Your task to perform on an android device: Is it going to rain this weekend? Image 0: 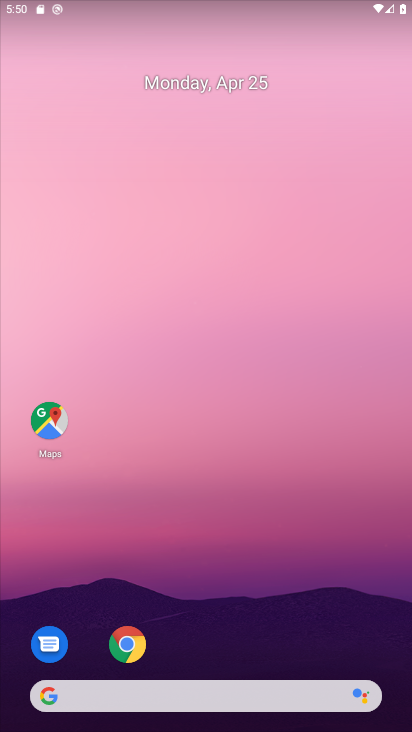
Step 0: drag from (276, 608) to (181, 120)
Your task to perform on an android device: Is it going to rain this weekend? Image 1: 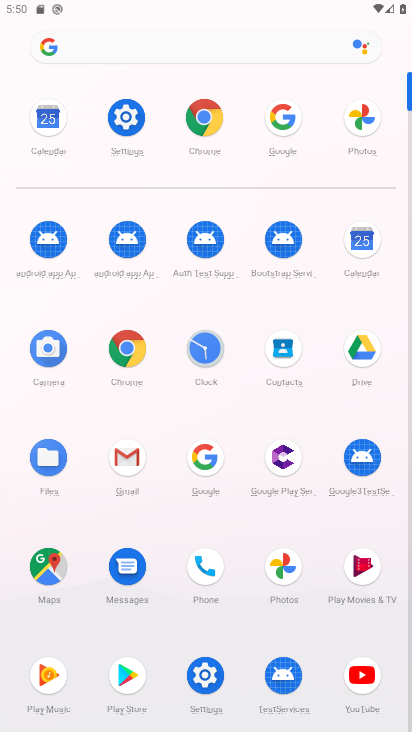
Step 1: click (205, 461)
Your task to perform on an android device: Is it going to rain this weekend? Image 2: 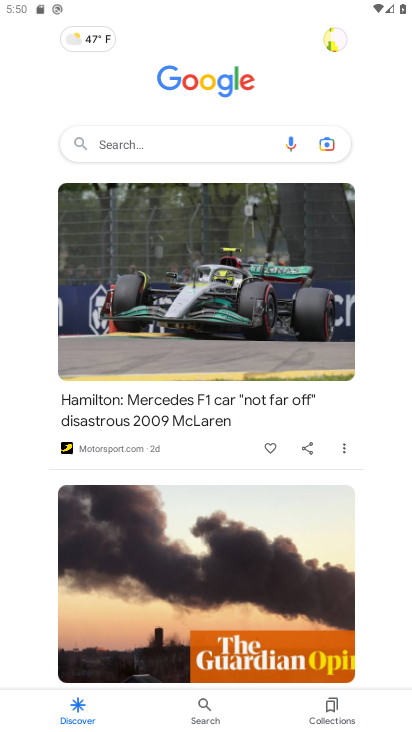
Step 2: click (90, 31)
Your task to perform on an android device: Is it going to rain this weekend? Image 3: 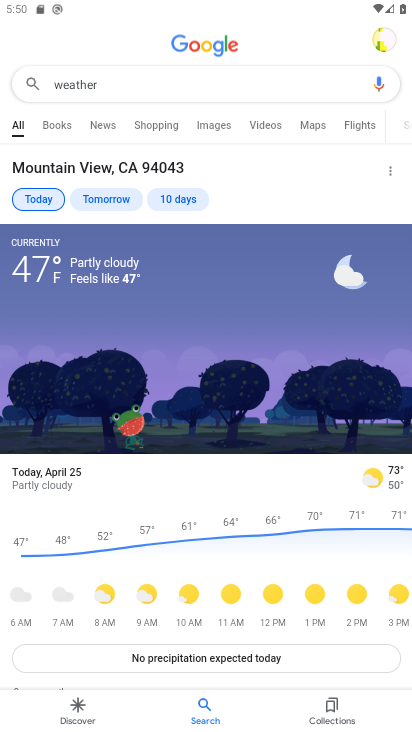
Step 3: click (190, 203)
Your task to perform on an android device: Is it going to rain this weekend? Image 4: 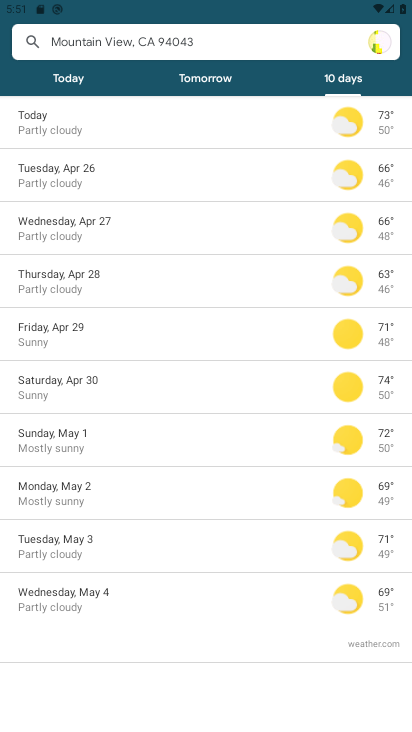
Step 4: task complete